Your task to perform on an android device: turn off airplane mode Image 0: 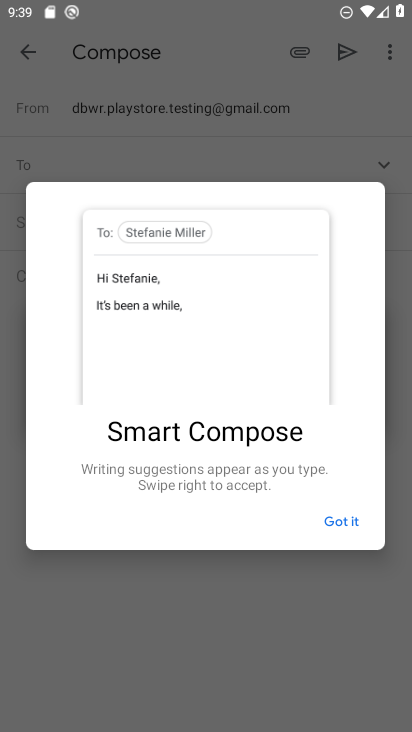
Step 0: press home button
Your task to perform on an android device: turn off airplane mode Image 1: 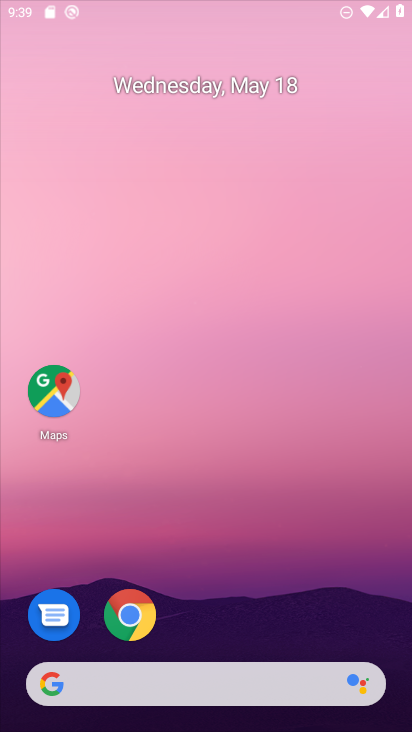
Step 1: drag from (224, 601) to (262, 104)
Your task to perform on an android device: turn off airplane mode Image 2: 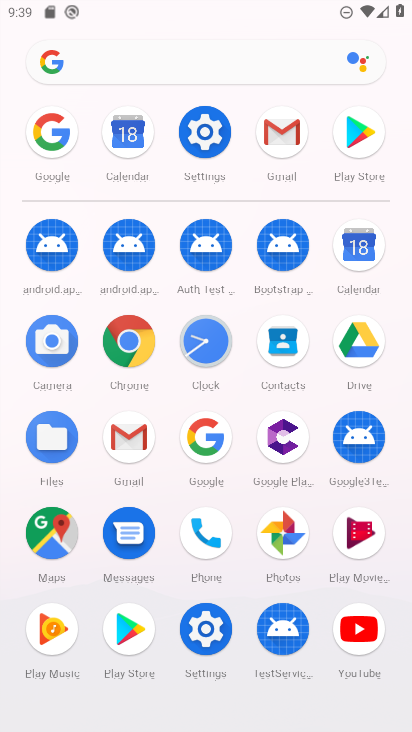
Step 2: click (210, 134)
Your task to perform on an android device: turn off airplane mode Image 3: 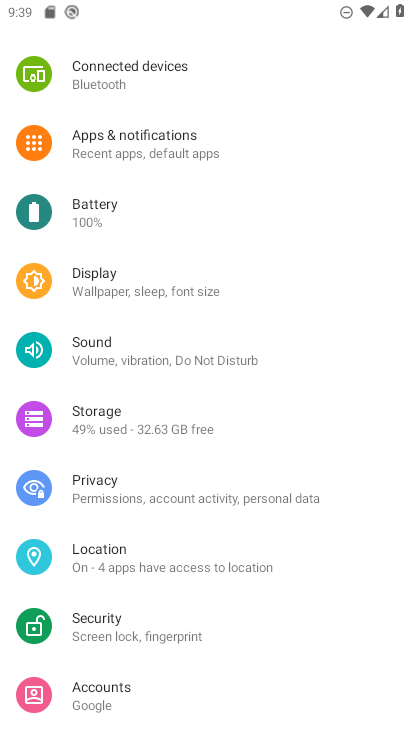
Step 3: drag from (210, 135) to (261, 660)
Your task to perform on an android device: turn off airplane mode Image 4: 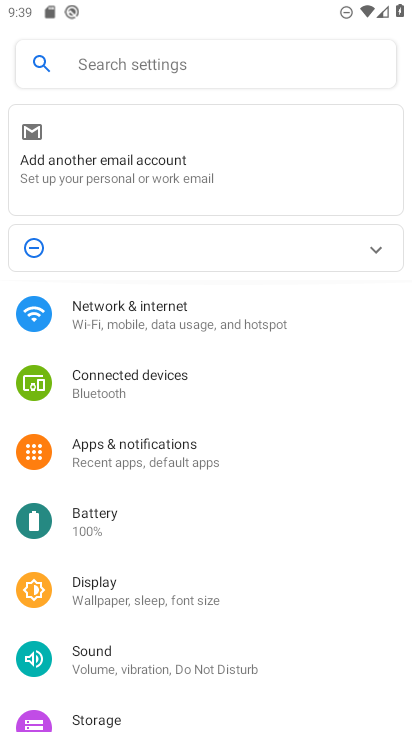
Step 4: click (161, 319)
Your task to perform on an android device: turn off airplane mode Image 5: 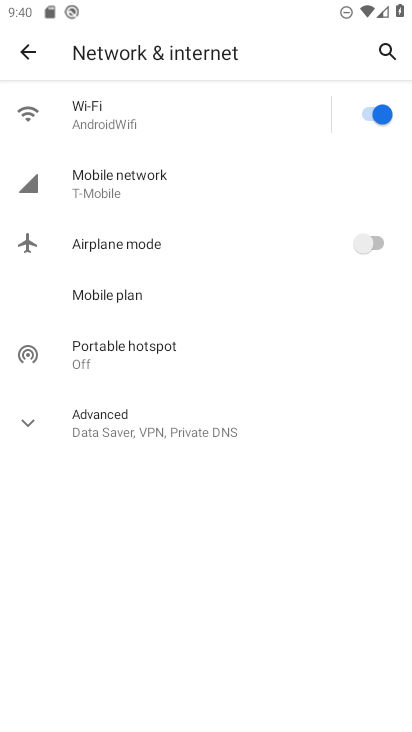
Step 5: task complete